Your task to perform on an android device: Show me recent news Image 0: 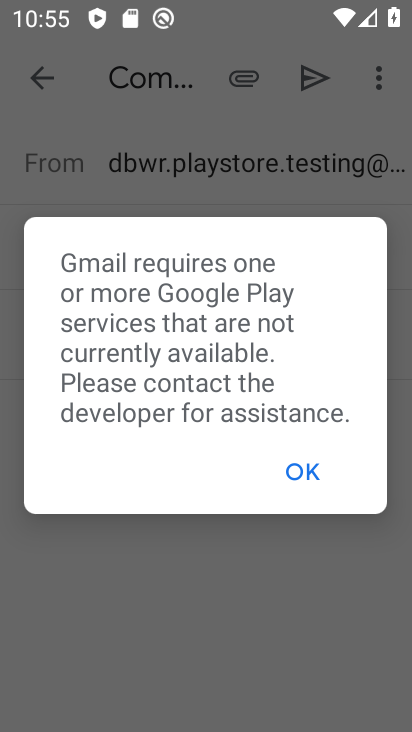
Step 0: press home button
Your task to perform on an android device: Show me recent news Image 1: 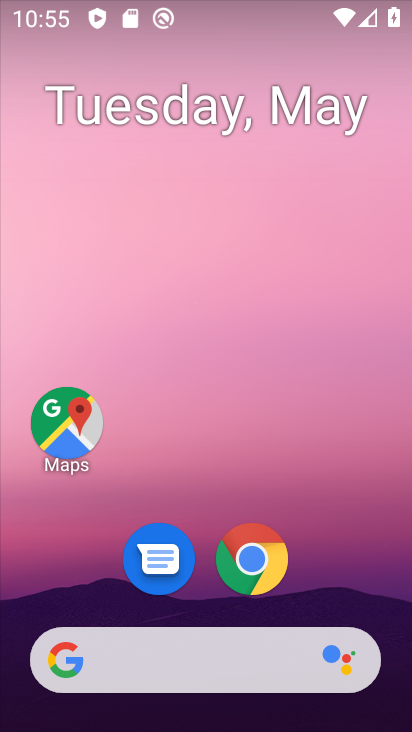
Step 1: drag from (340, 567) to (210, 11)
Your task to perform on an android device: Show me recent news Image 2: 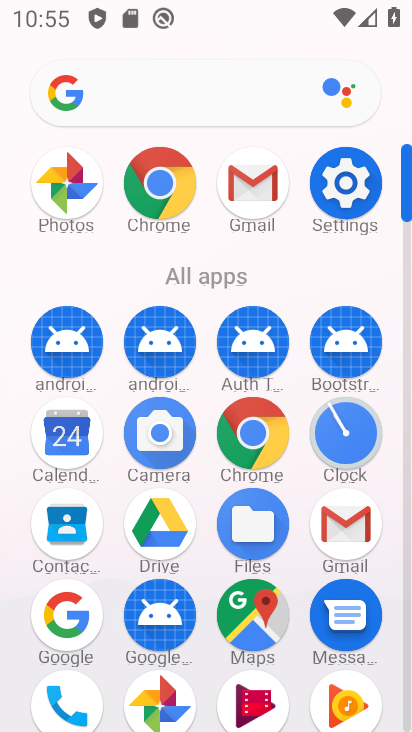
Step 2: click (208, 98)
Your task to perform on an android device: Show me recent news Image 3: 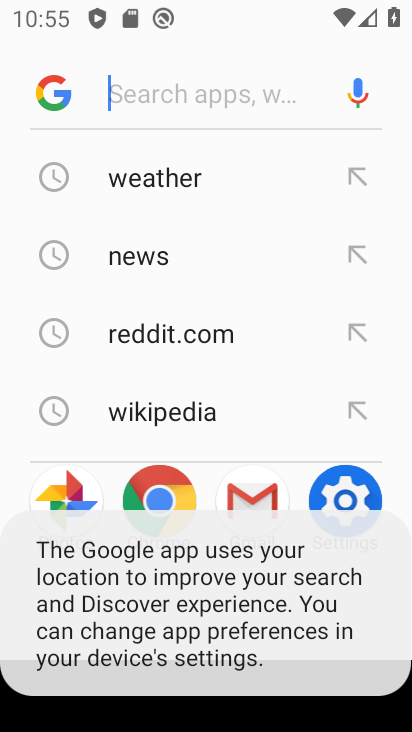
Step 3: click (159, 267)
Your task to perform on an android device: Show me recent news Image 4: 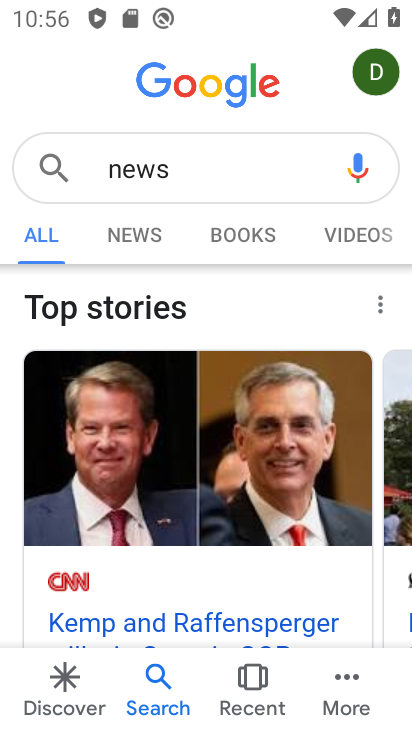
Step 4: task complete